Your task to perform on an android device: Open my contact list Image 0: 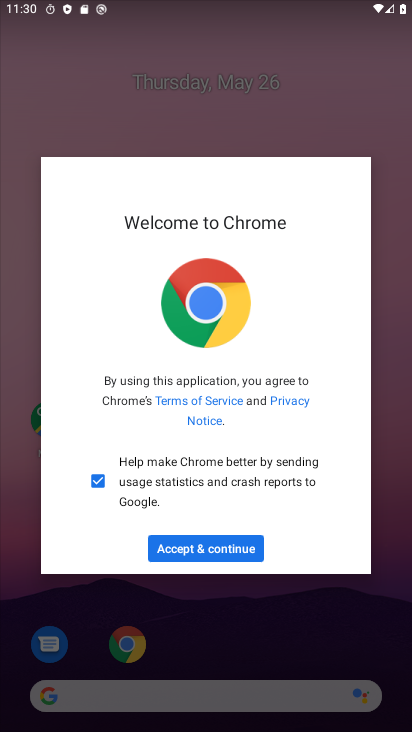
Step 0: press home button
Your task to perform on an android device: Open my contact list Image 1: 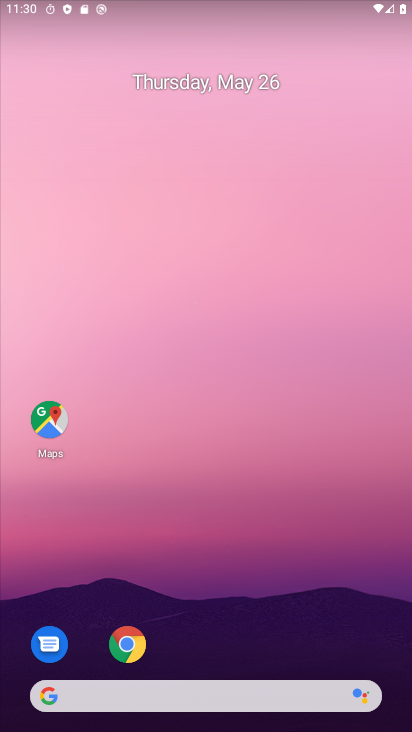
Step 1: drag from (295, 602) to (191, 0)
Your task to perform on an android device: Open my contact list Image 2: 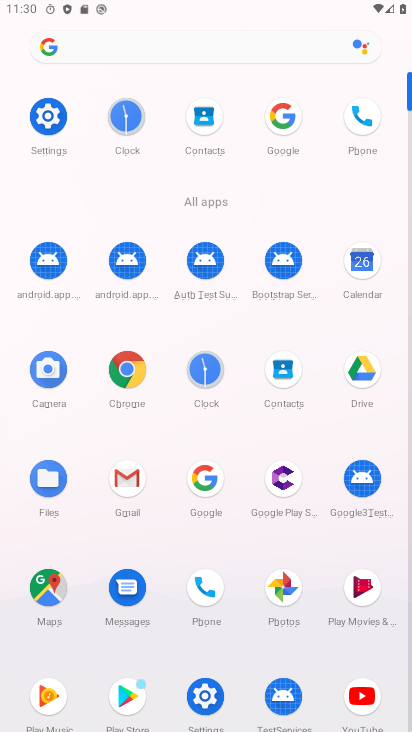
Step 2: click (287, 374)
Your task to perform on an android device: Open my contact list Image 3: 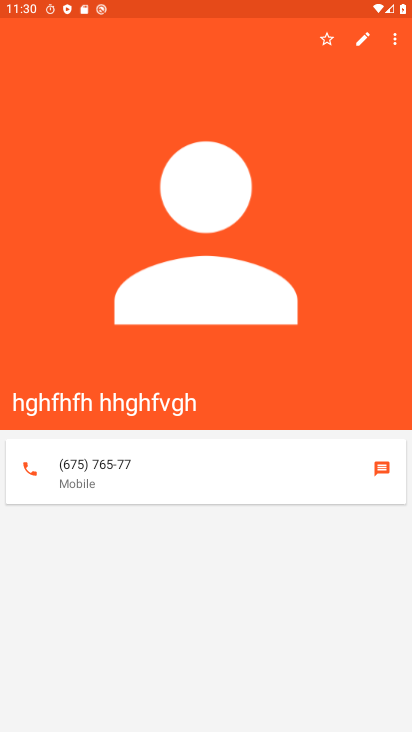
Step 3: task complete